Your task to perform on an android device: Open the calendar and show me this week's events? Image 0: 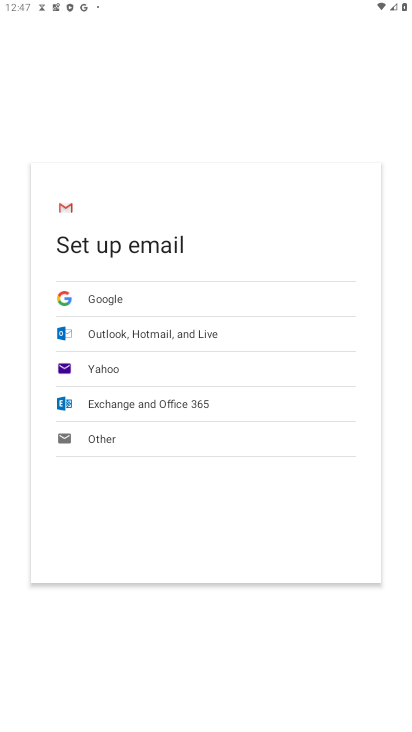
Step 0: press home button
Your task to perform on an android device: Open the calendar and show me this week's events? Image 1: 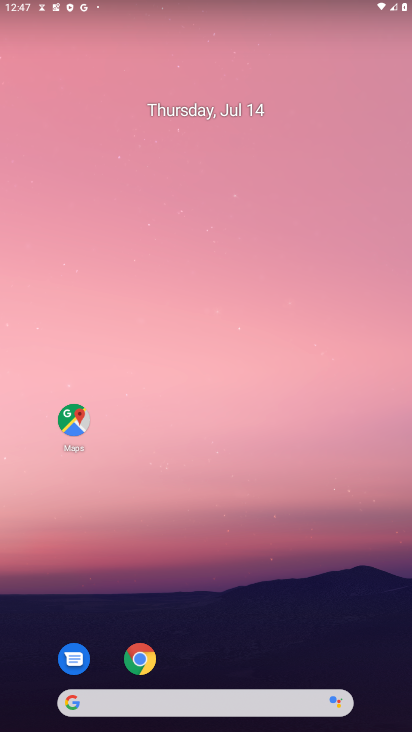
Step 1: drag from (184, 486) to (370, 232)
Your task to perform on an android device: Open the calendar and show me this week's events? Image 2: 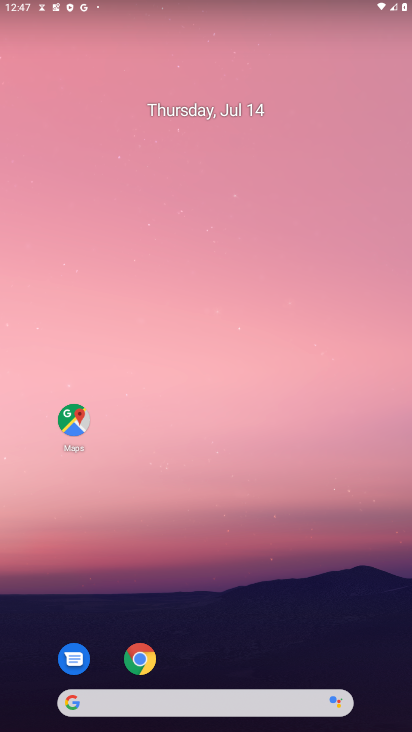
Step 2: drag from (402, 158) to (401, 60)
Your task to perform on an android device: Open the calendar and show me this week's events? Image 3: 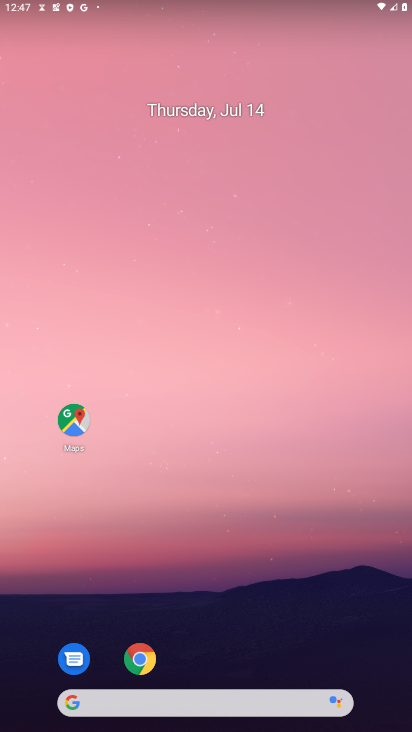
Step 3: drag from (30, 688) to (221, 7)
Your task to perform on an android device: Open the calendar and show me this week's events? Image 4: 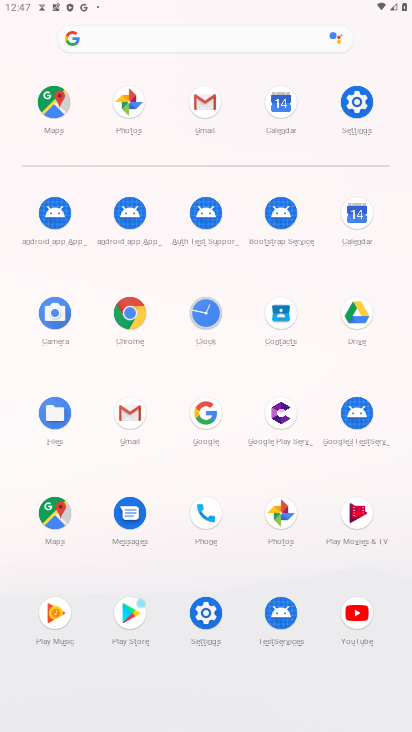
Step 4: click (370, 211)
Your task to perform on an android device: Open the calendar and show me this week's events? Image 5: 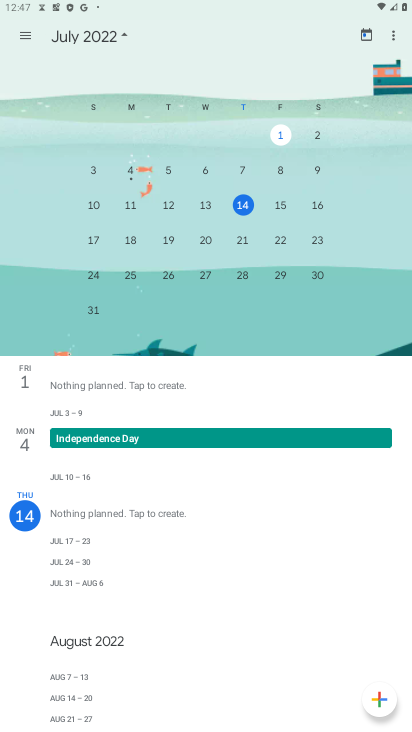
Step 5: task complete